Your task to perform on an android device: uninstall "Pluto TV - Live TV and Movies" Image 0: 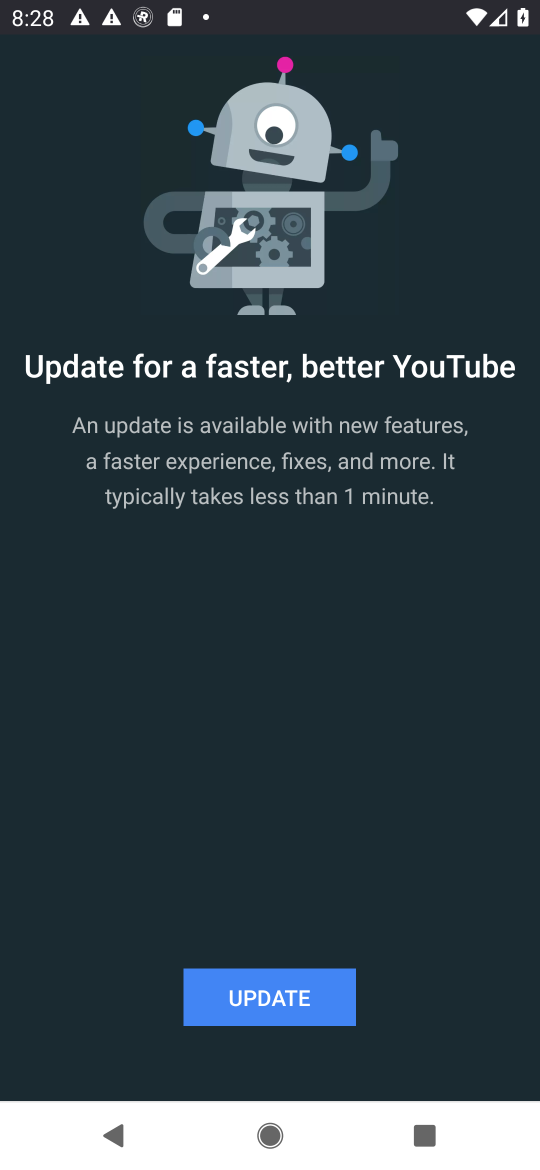
Step 0: press home button
Your task to perform on an android device: uninstall "Pluto TV - Live TV and Movies" Image 1: 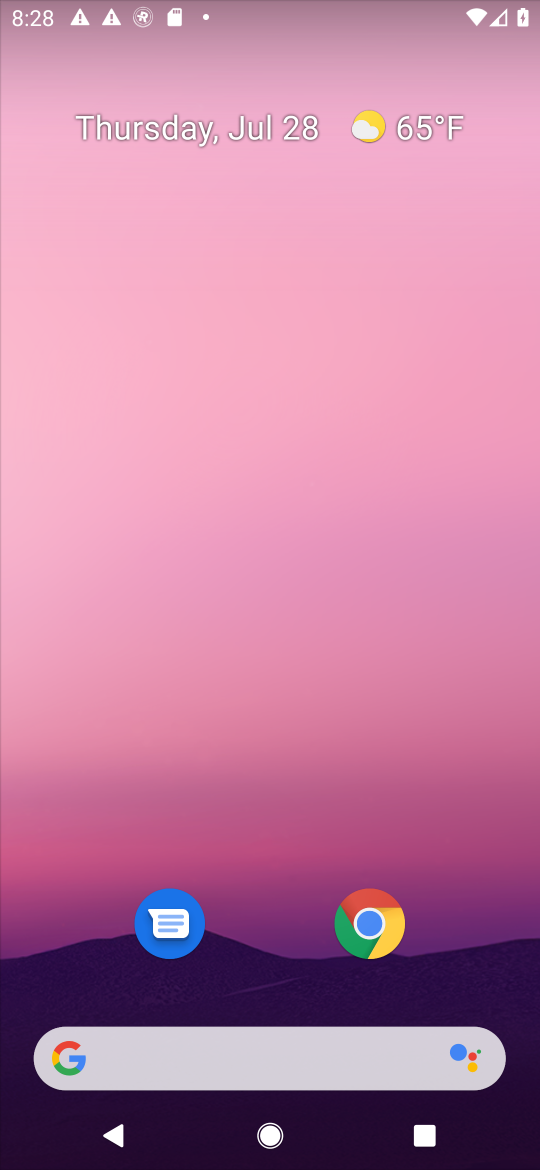
Step 1: drag from (477, 877) to (377, 73)
Your task to perform on an android device: uninstall "Pluto TV - Live TV and Movies" Image 2: 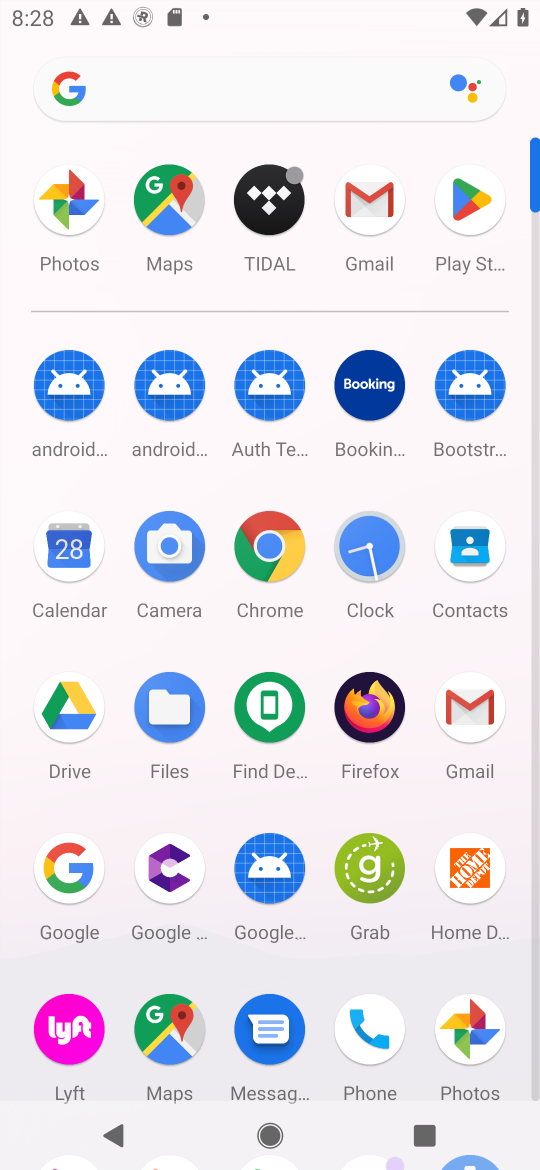
Step 2: click (461, 202)
Your task to perform on an android device: uninstall "Pluto TV - Live TV and Movies" Image 3: 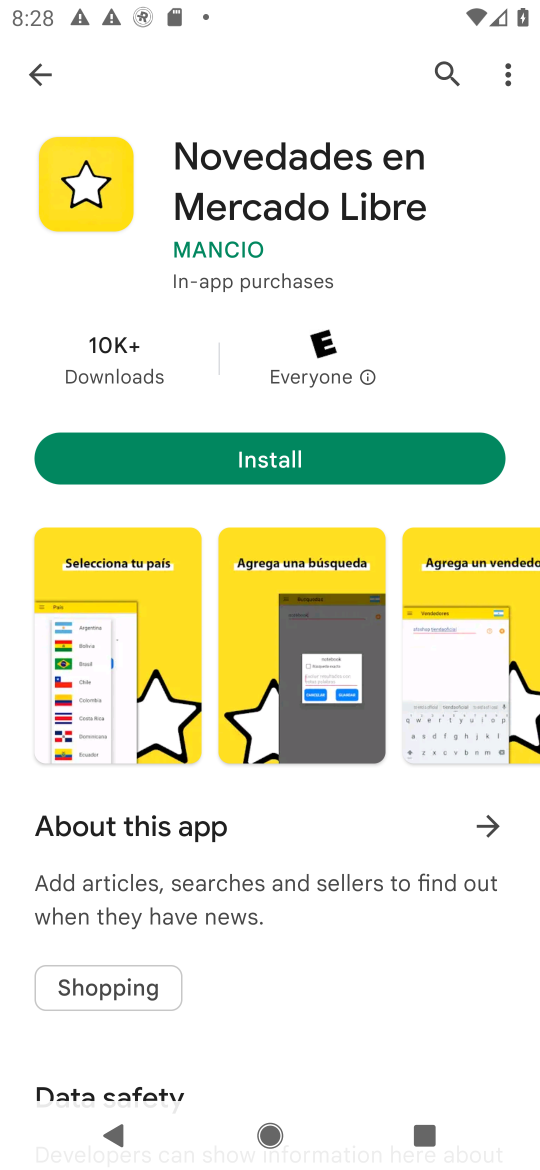
Step 3: click (449, 82)
Your task to perform on an android device: uninstall "Pluto TV - Live TV and Movies" Image 4: 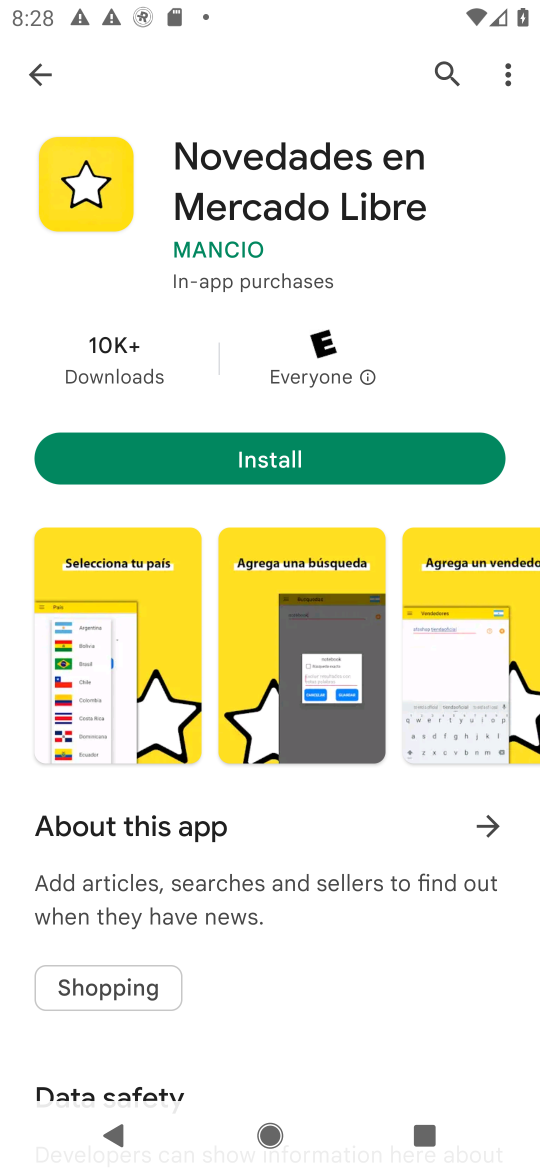
Step 4: click (448, 69)
Your task to perform on an android device: uninstall "Pluto TV - Live TV and Movies" Image 5: 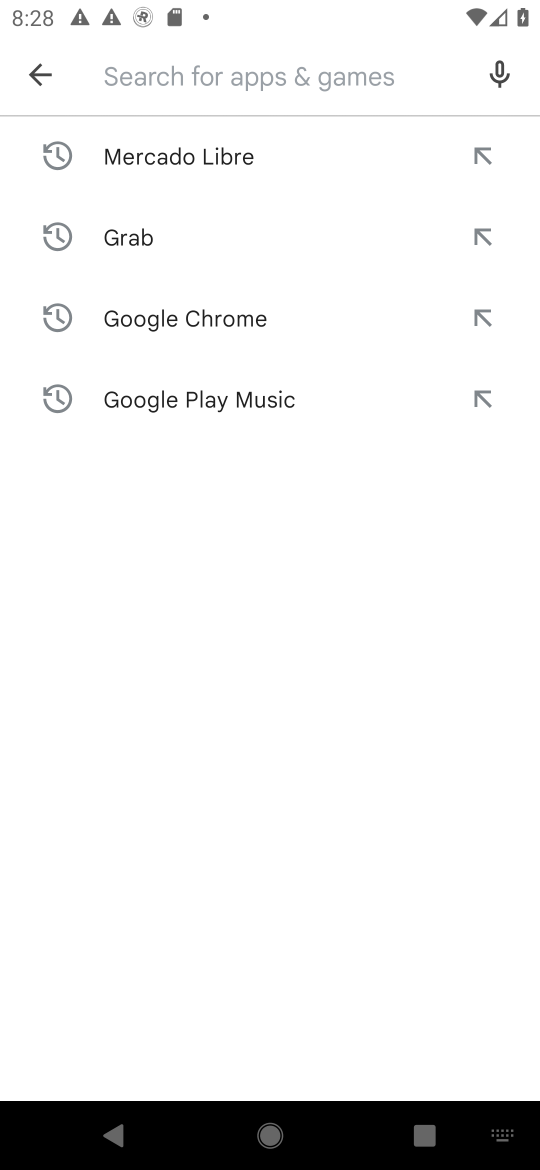
Step 5: type "Pluto TV - Live TV and Movies"
Your task to perform on an android device: uninstall "Pluto TV - Live TV and Movies" Image 6: 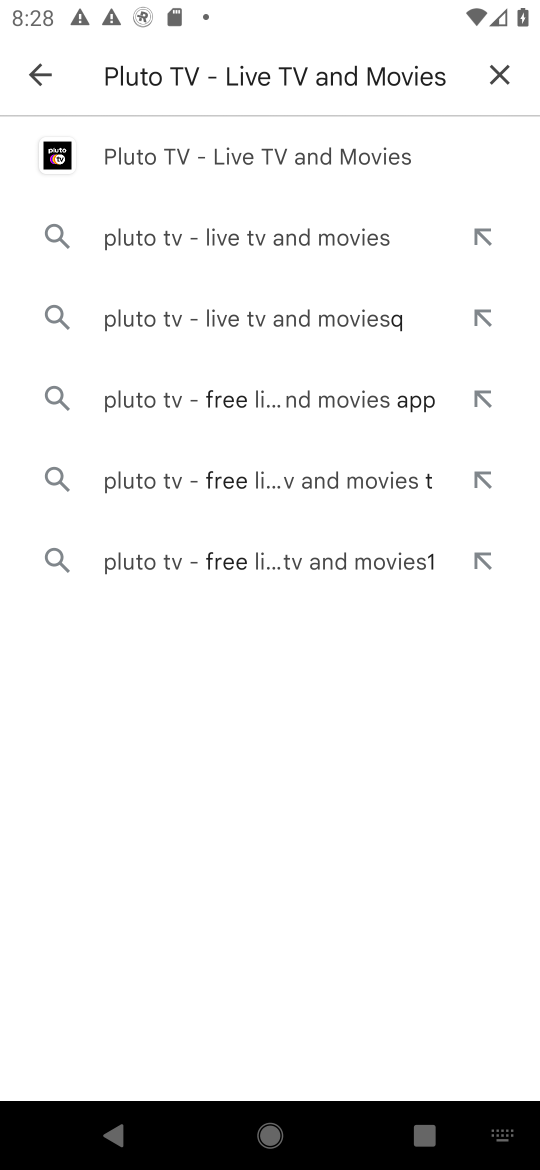
Step 6: click (361, 149)
Your task to perform on an android device: uninstall "Pluto TV - Live TV and Movies" Image 7: 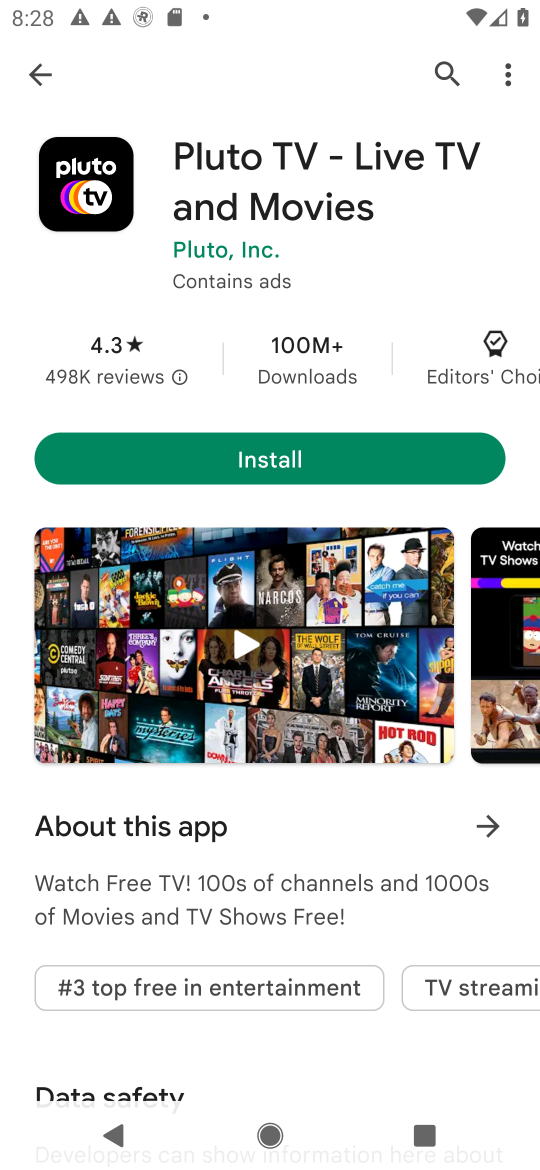
Step 7: task complete